Your task to perform on an android device: open a bookmark in the chrome app Image 0: 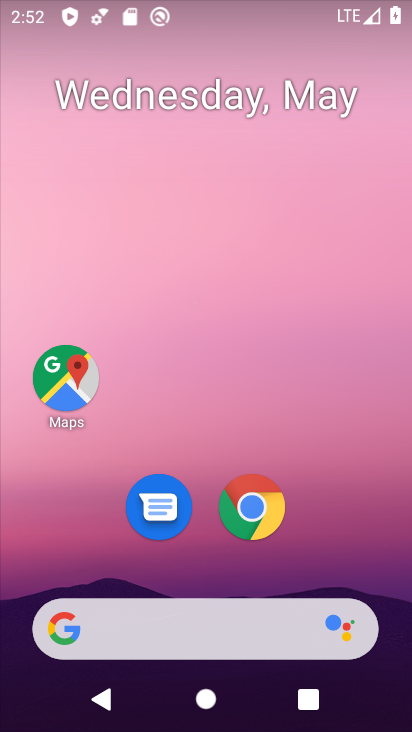
Step 0: drag from (338, 551) to (315, 31)
Your task to perform on an android device: open a bookmark in the chrome app Image 1: 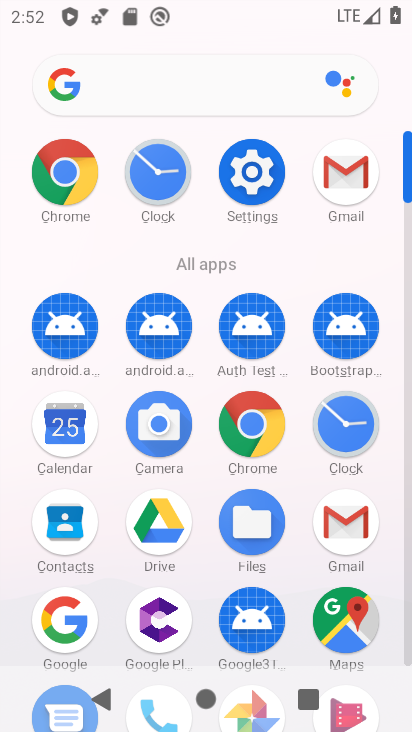
Step 1: drag from (2, 629) to (25, 260)
Your task to perform on an android device: open a bookmark in the chrome app Image 2: 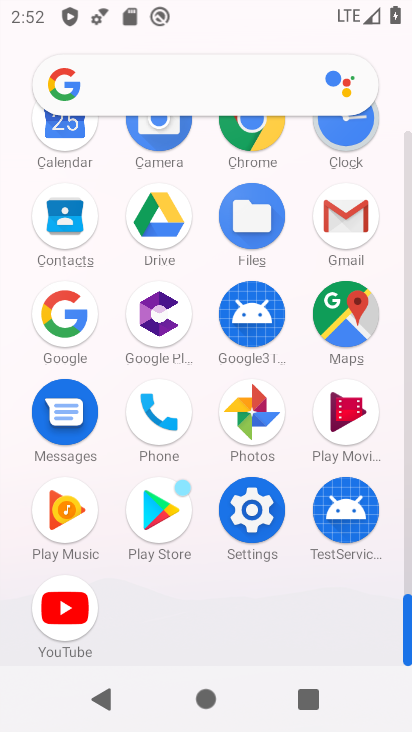
Step 2: click (251, 125)
Your task to perform on an android device: open a bookmark in the chrome app Image 3: 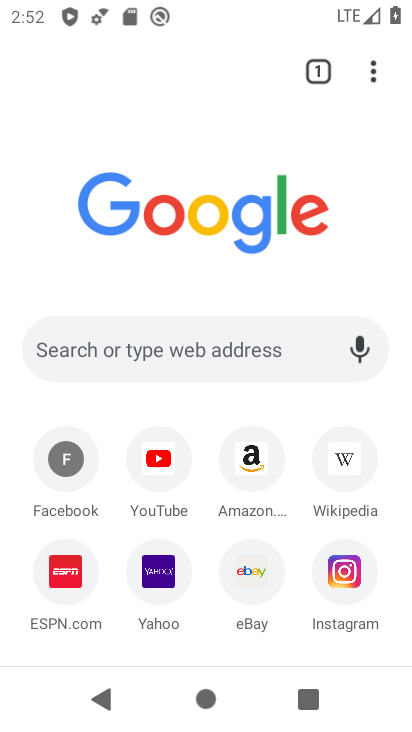
Step 3: task complete